Your task to perform on an android device: see tabs open on other devices in the chrome app Image 0: 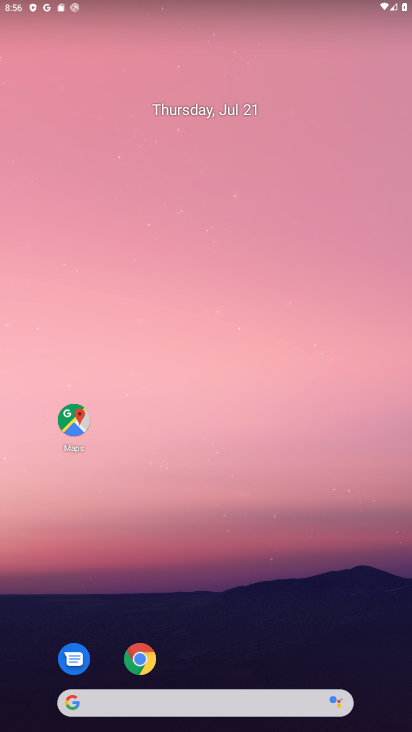
Step 0: drag from (388, 621) to (341, 260)
Your task to perform on an android device: see tabs open on other devices in the chrome app Image 1: 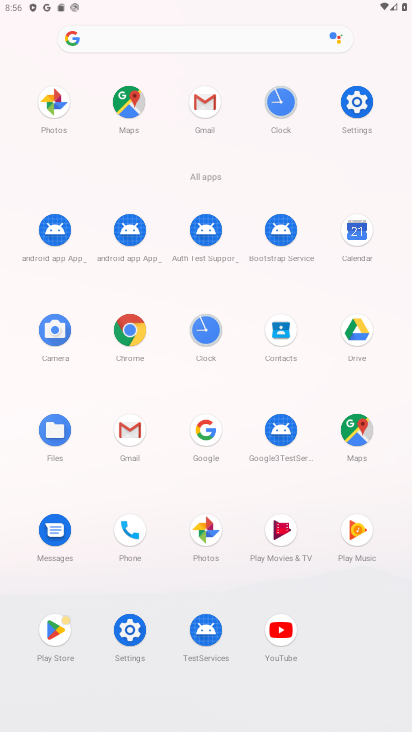
Step 1: click (124, 347)
Your task to perform on an android device: see tabs open on other devices in the chrome app Image 2: 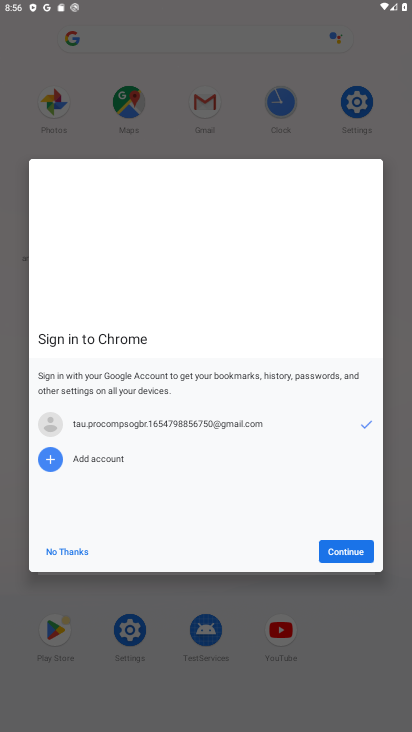
Step 2: click (336, 549)
Your task to perform on an android device: see tabs open on other devices in the chrome app Image 3: 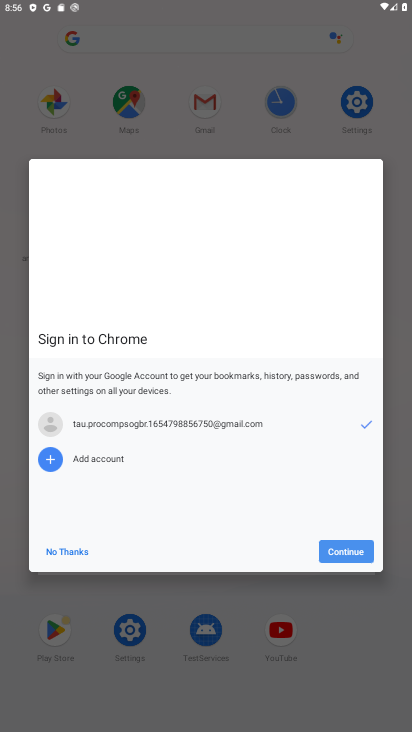
Step 3: click (336, 549)
Your task to perform on an android device: see tabs open on other devices in the chrome app Image 4: 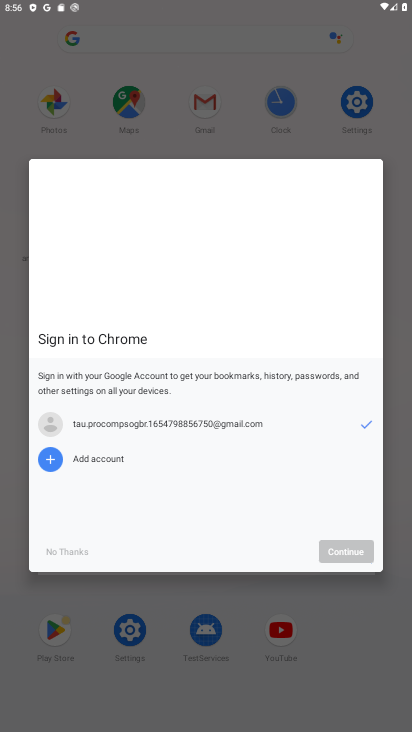
Step 4: click (336, 549)
Your task to perform on an android device: see tabs open on other devices in the chrome app Image 5: 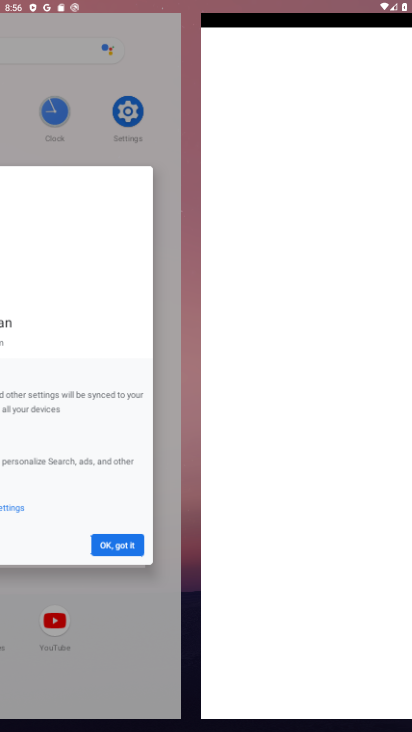
Step 5: click (336, 549)
Your task to perform on an android device: see tabs open on other devices in the chrome app Image 6: 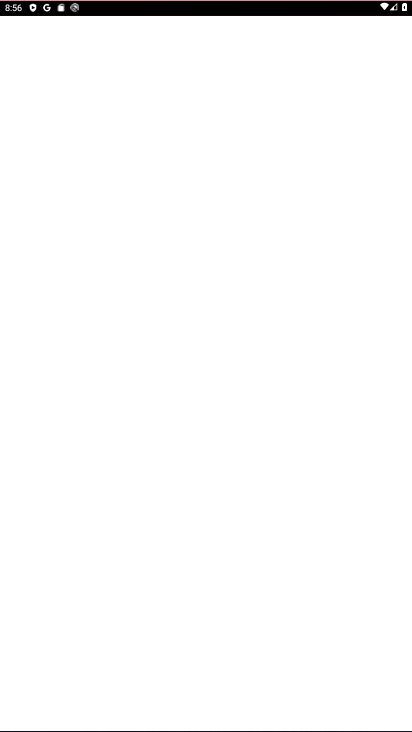
Step 6: click (336, 549)
Your task to perform on an android device: see tabs open on other devices in the chrome app Image 7: 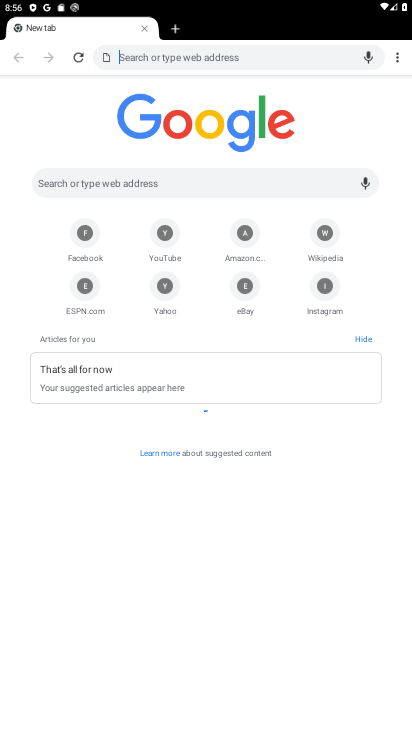
Step 7: task complete